Your task to perform on an android device: toggle location history Image 0: 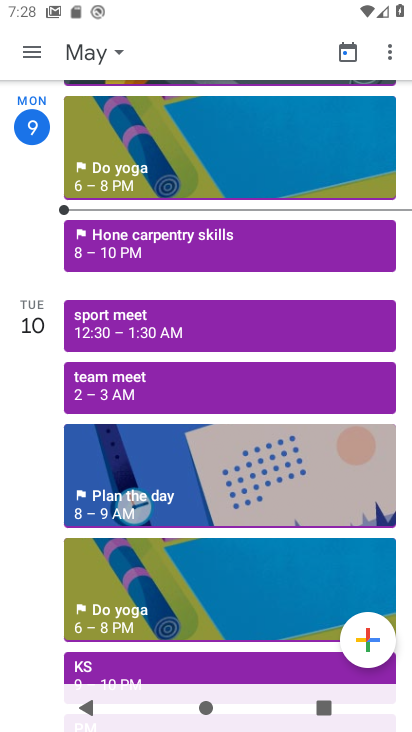
Step 0: press home button
Your task to perform on an android device: toggle location history Image 1: 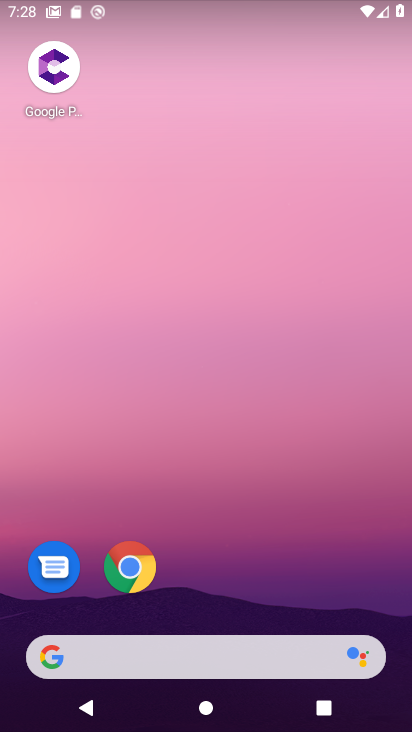
Step 1: drag from (197, 592) to (191, 21)
Your task to perform on an android device: toggle location history Image 2: 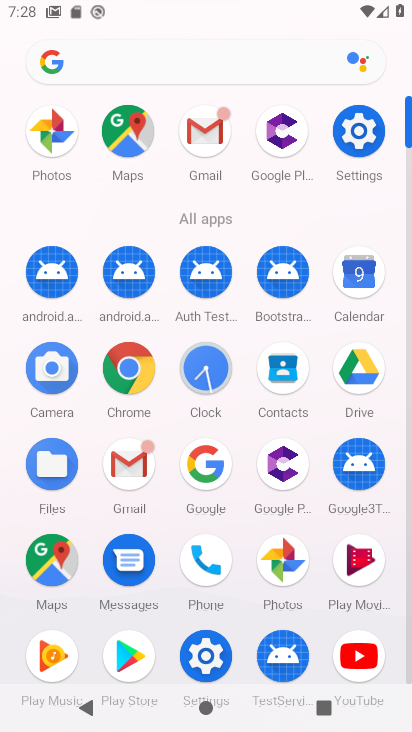
Step 2: click (362, 131)
Your task to perform on an android device: toggle location history Image 3: 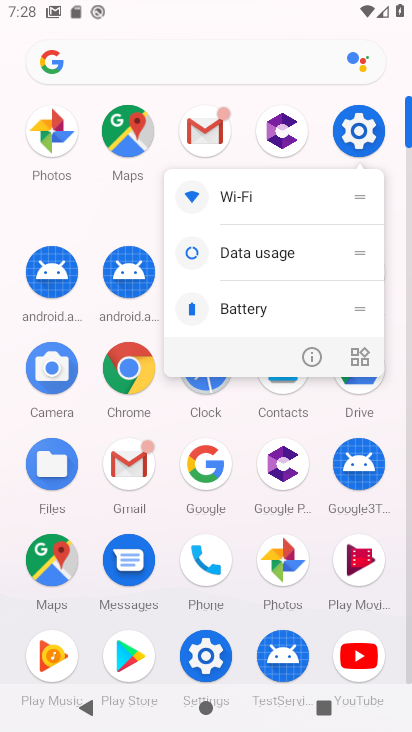
Step 3: click (313, 350)
Your task to perform on an android device: toggle location history Image 4: 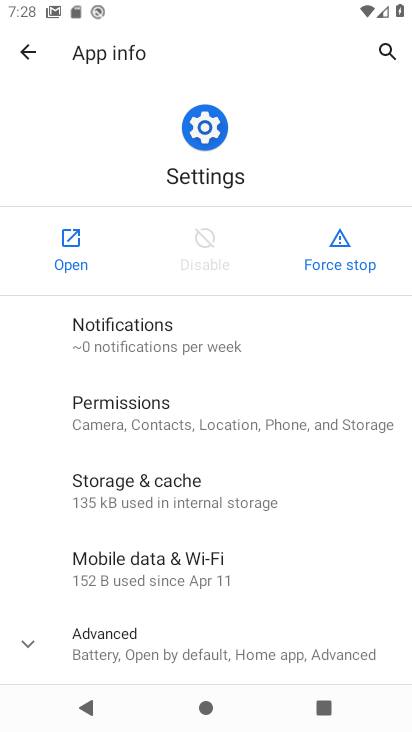
Step 4: click (79, 236)
Your task to perform on an android device: toggle location history Image 5: 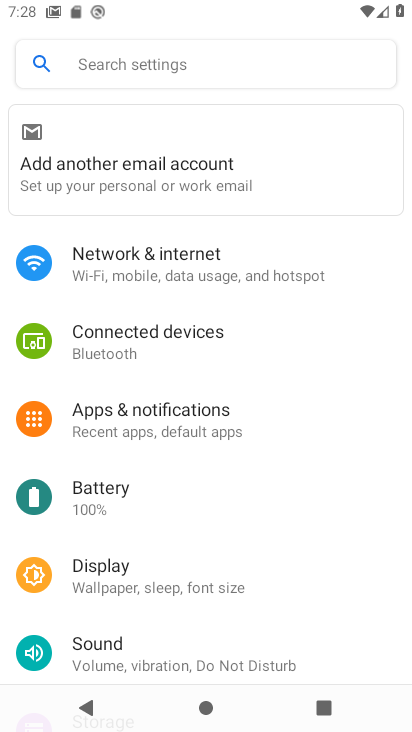
Step 5: drag from (172, 647) to (205, 358)
Your task to perform on an android device: toggle location history Image 6: 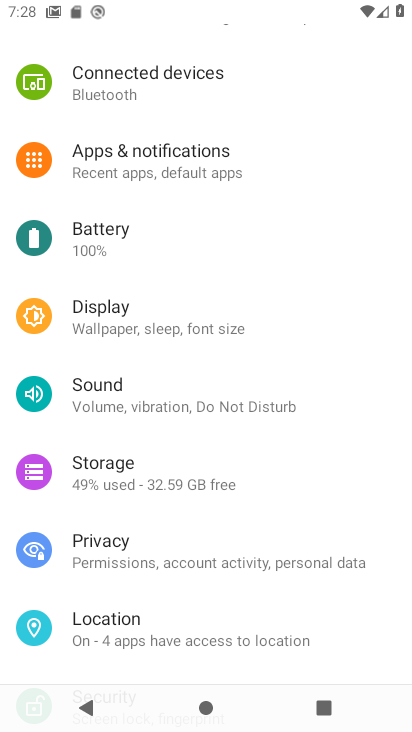
Step 6: drag from (188, 585) to (296, 232)
Your task to perform on an android device: toggle location history Image 7: 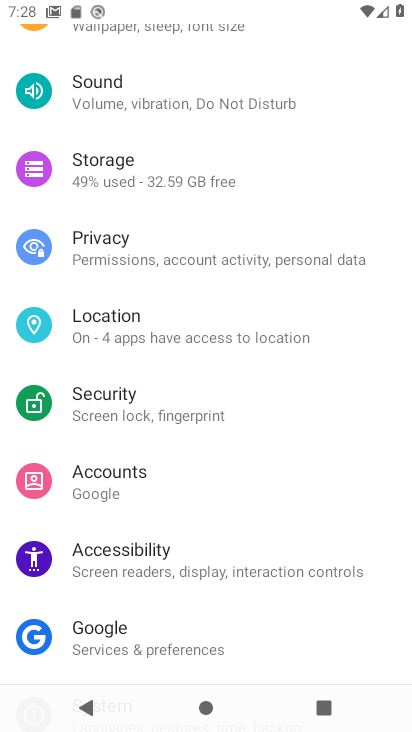
Step 7: click (180, 358)
Your task to perform on an android device: toggle location history Image 8: 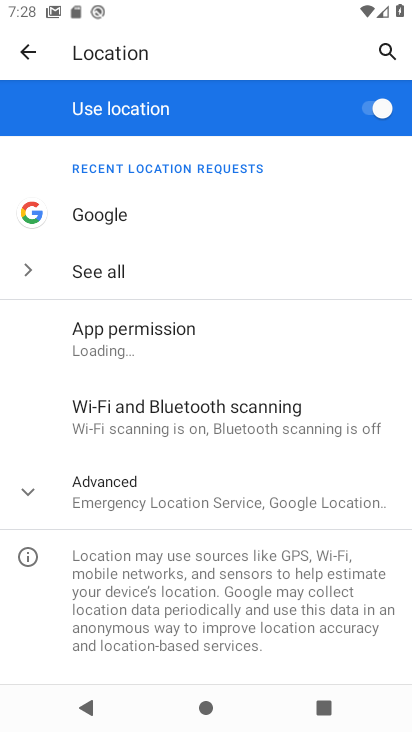
Step 8: drag from (171, 602) to (250, 235)
Your task to perform on an android device: toggle location history Image 9: 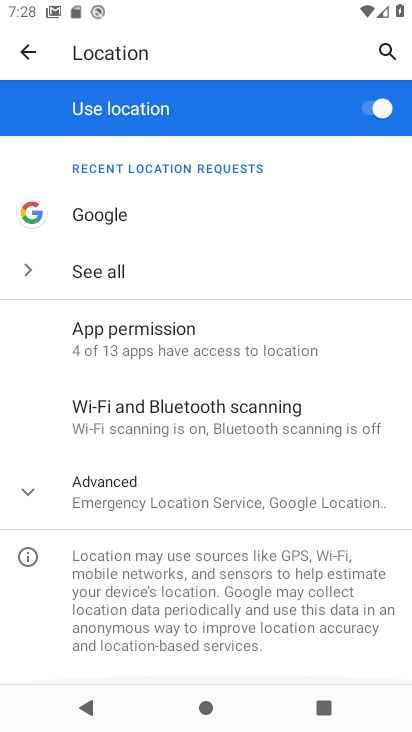
Step 9: click (162, 483)
Your task to perform on an android device: toggle location history Image 10: 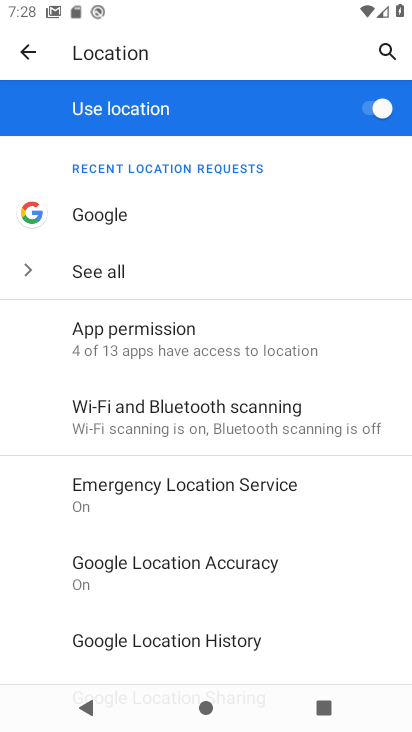
Step 10: drag from (240, 619) to (285, 206)
Your task to perform on an android device: toggle location history Image 11: 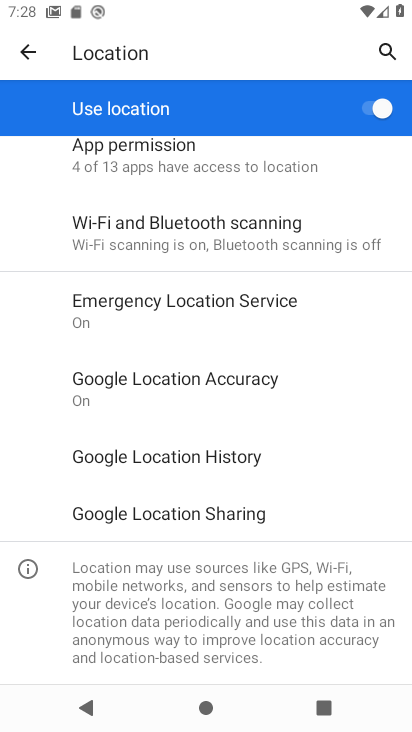
Step 11: drag from (222, 605) to (256, 312)
Your task to perform on an android device: toggle location history Image 12: 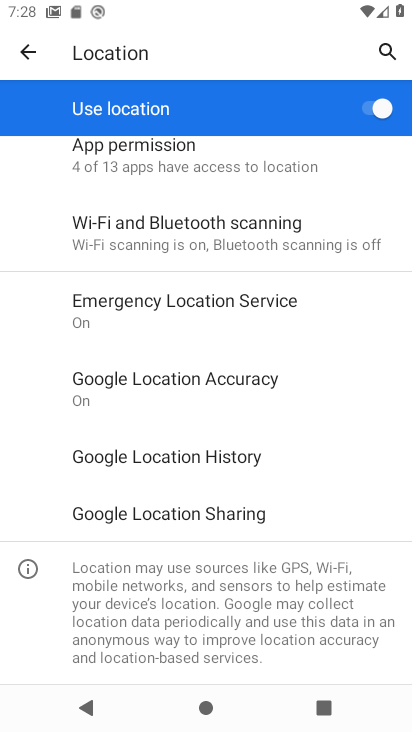
Step 12: click (186, 460)
Your task to perform on an android device: toggle location history Image 13: 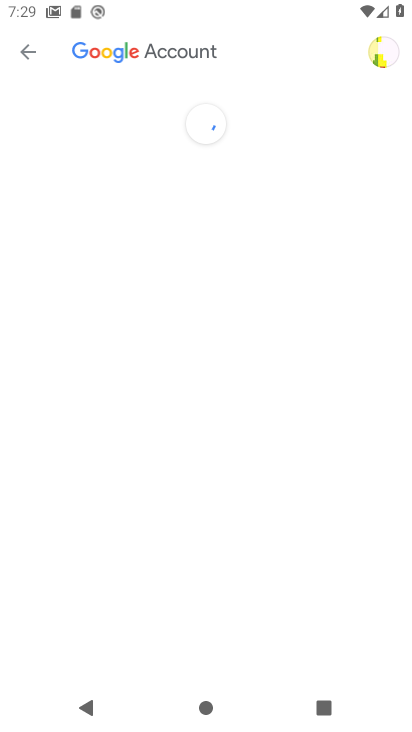
Step 13: drag from (226, 557) to (316, 106)
Your task to perform on an android device: toggle location history Image 14: 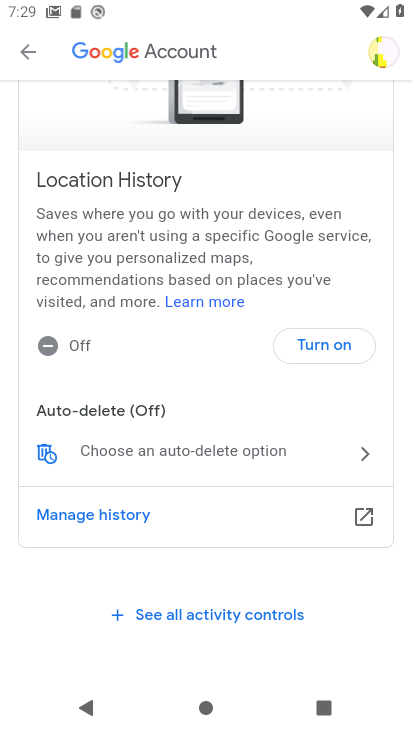
Step 14: drag from (238, 605) to (266, 329)
Your task to perform on an android device: toggle location history Image 15: 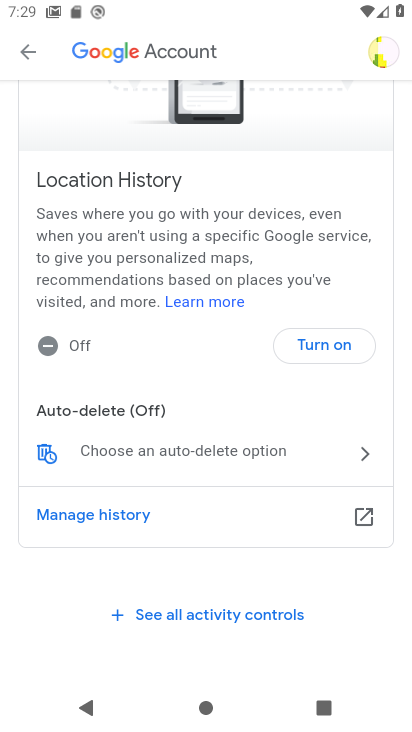
Step 15: click (294, 345)
Your task to perform on an android device: toggle location history Image 16: 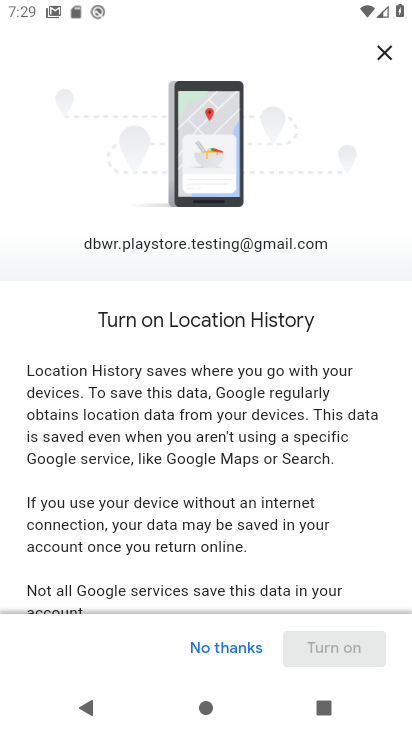
Step 16: drag from (277, 560) to (368, 62)
Your task to perform on an android device: toggle location history Image 17: 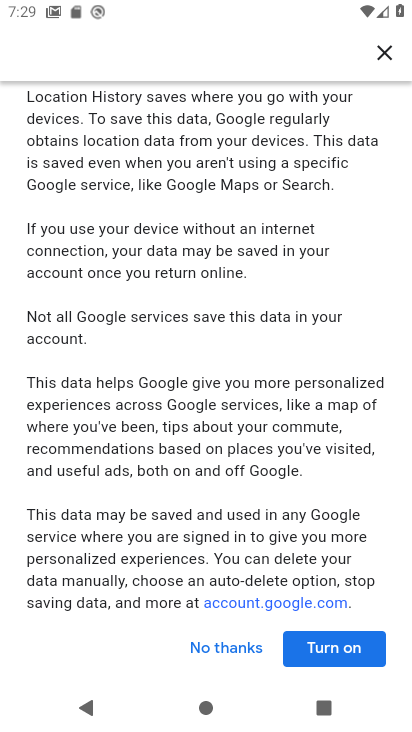
Step 17: drag from (171, 602) to (280, 199)
Your task to perform on an android device: toggle location history Image 18: 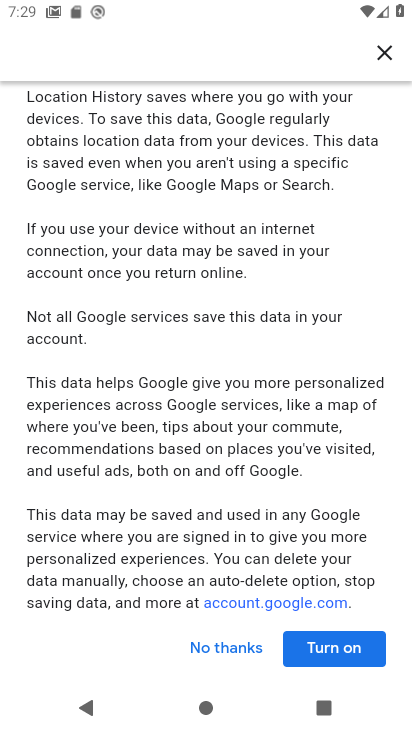
Step 18: drag from (212, 580) to (286, 206)
Your task to perform on an android device: toggle location history Image 19: 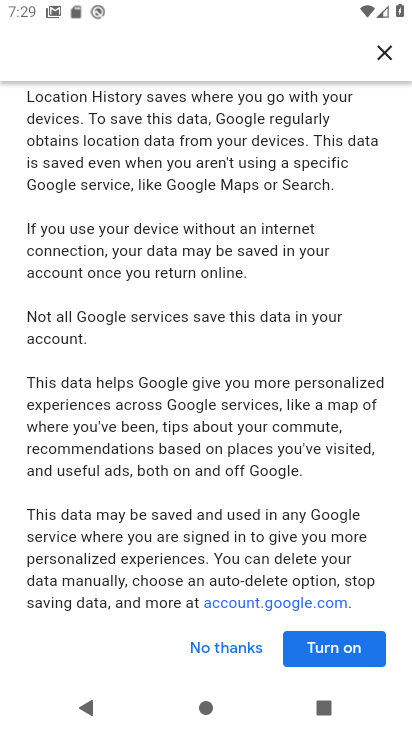
Step 19: click (352, 651)
Your task to perform on an android device: toggle location history Image 20: 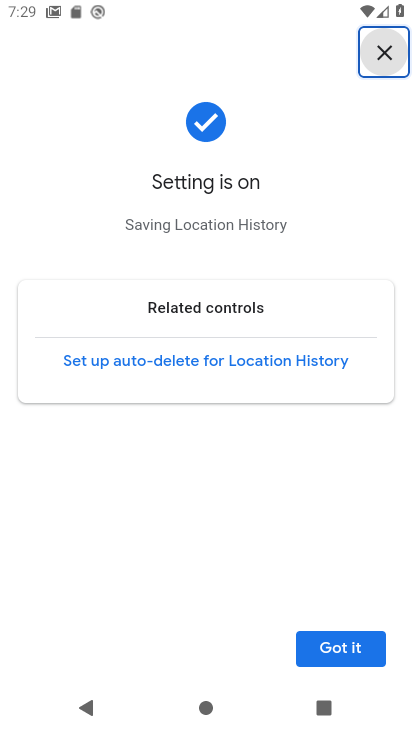
Step 20: click (327, 641)
Your task to perform on an android device: toggle location history Image 21: 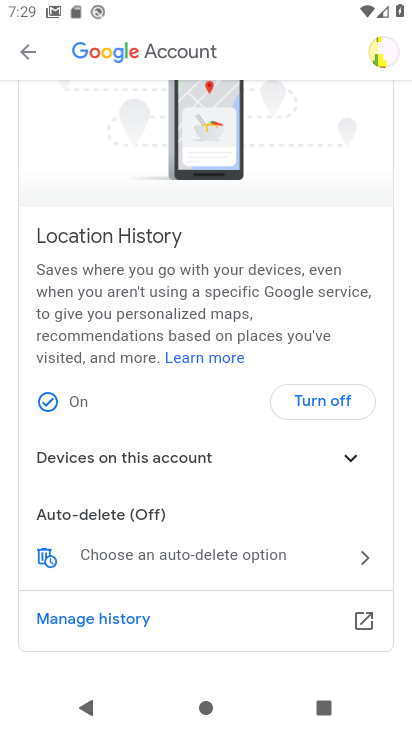
Step 21: task complete